Your task to perform on an android device: Search for pizza restaurants on Maps Image 0: 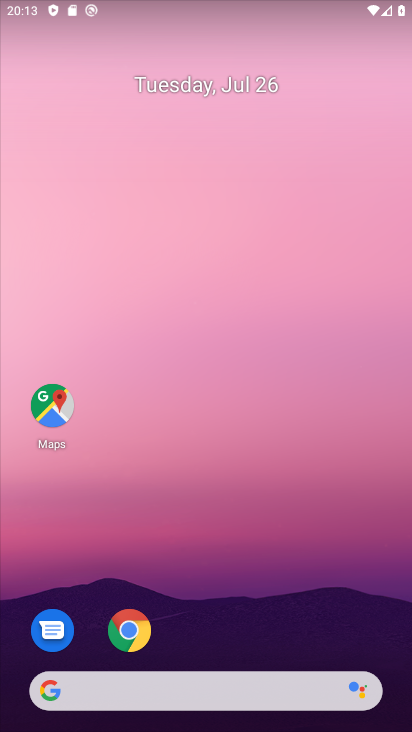
Step 0: press home button
Your task to perform on an android device: Search for pizza restaurants on Maps Image 1: 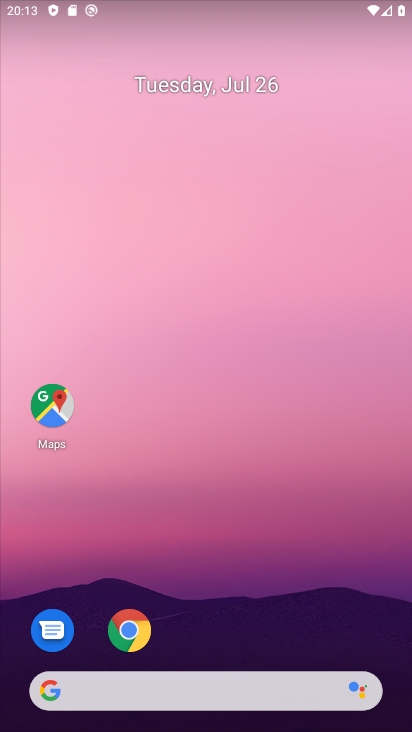
Step 1: drag from (295, 642) to (326, 394)
Your task to perform on an android device: Search for pizza restaurants on Maps Image 2: 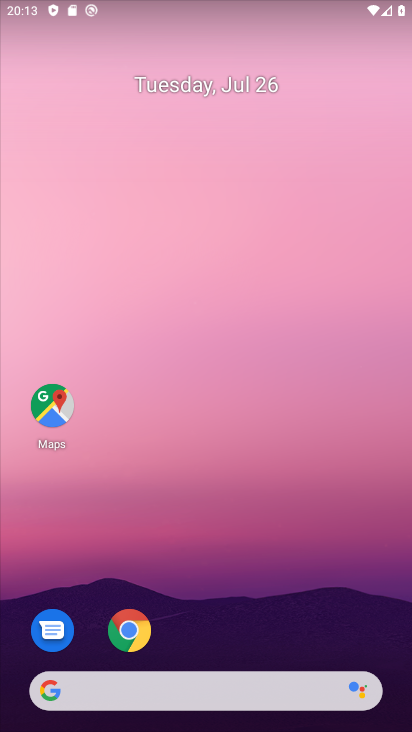
Step 2: drag from (348, 631) to (360, 106)
Your task to perform on an android device: Search for pizza restaurants on Maps Image 3: 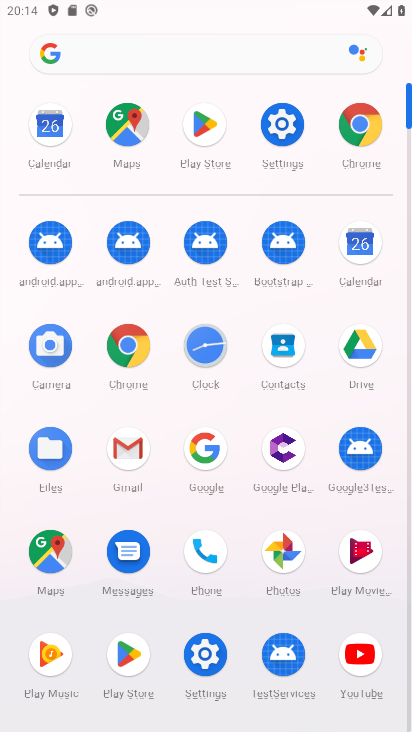
Step 3: click (125, 132)
Your task to perform on an android device: Search for pizza restaurants on Maps Image 4: 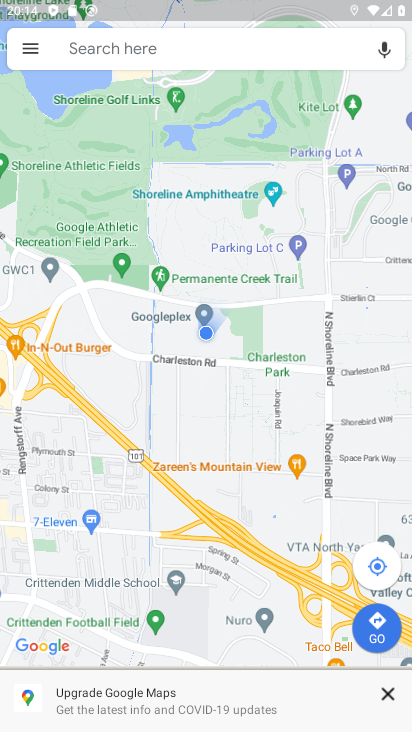
Step 4: click (217, 45)
Your task to perform on an android device: Search for pizza restaurants on Maps Image 5: 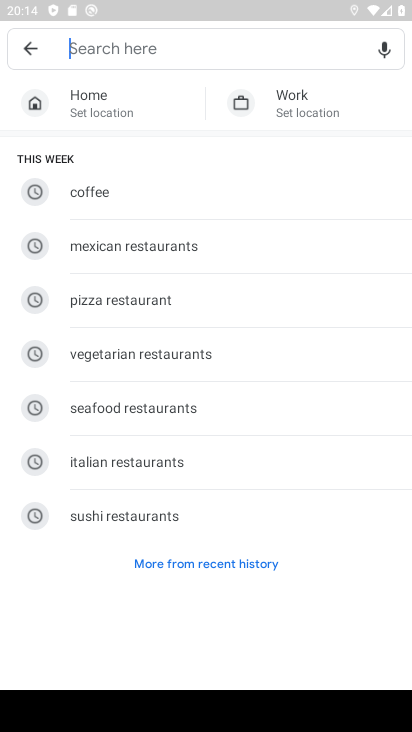
Step 5: type "pizza restaurants"
Your task to perform on an android device: Search for pizza restaurants on Maps Image 6: 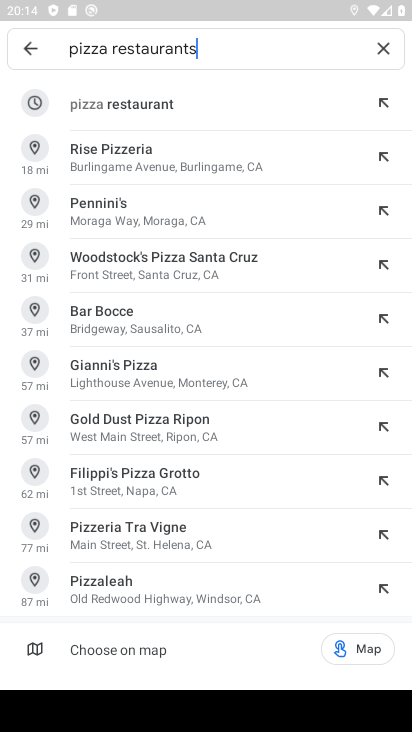
Step 6: click (270, 106)
Your task to perform on an android device: Search for pizza restaurants on Maps Image 7: 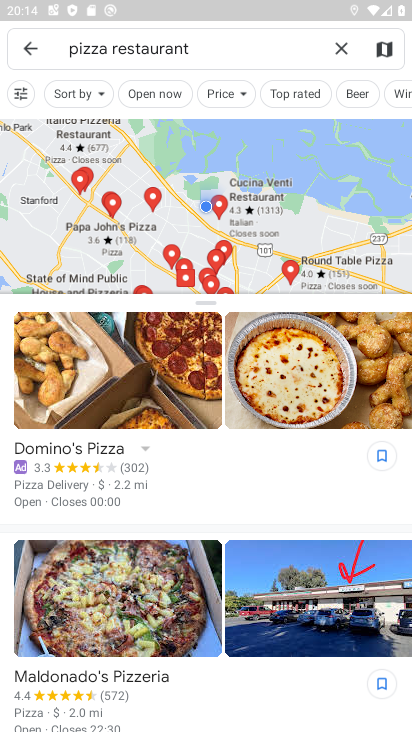
Step 7: task complete